Your task to perform on an android device: Clear the cart on bestbuy. Image 0: 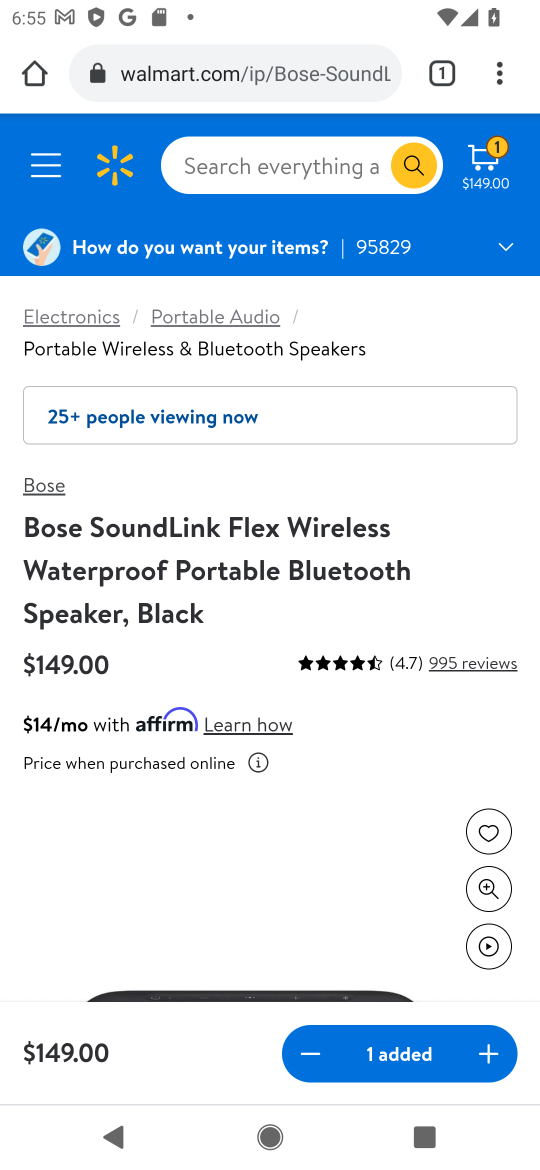
Step 0: press home button
Your task to perform on an android device: Clear the cart on bestbuy. Image 1: 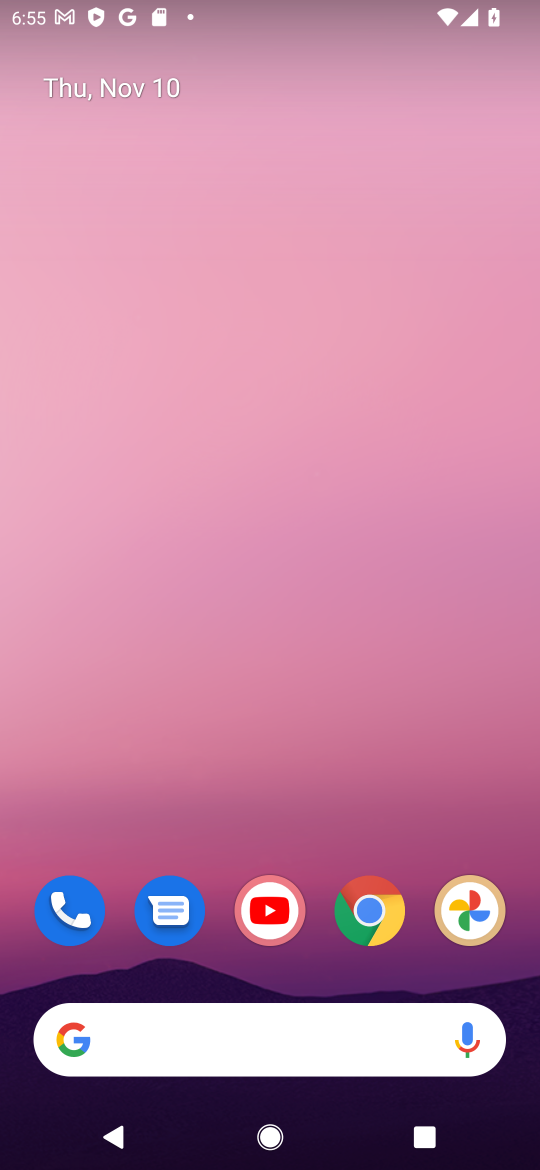
Step 1: click (367, 903)
Your task to perform on an android device: Clear the cart on bestbuy. Image 2: 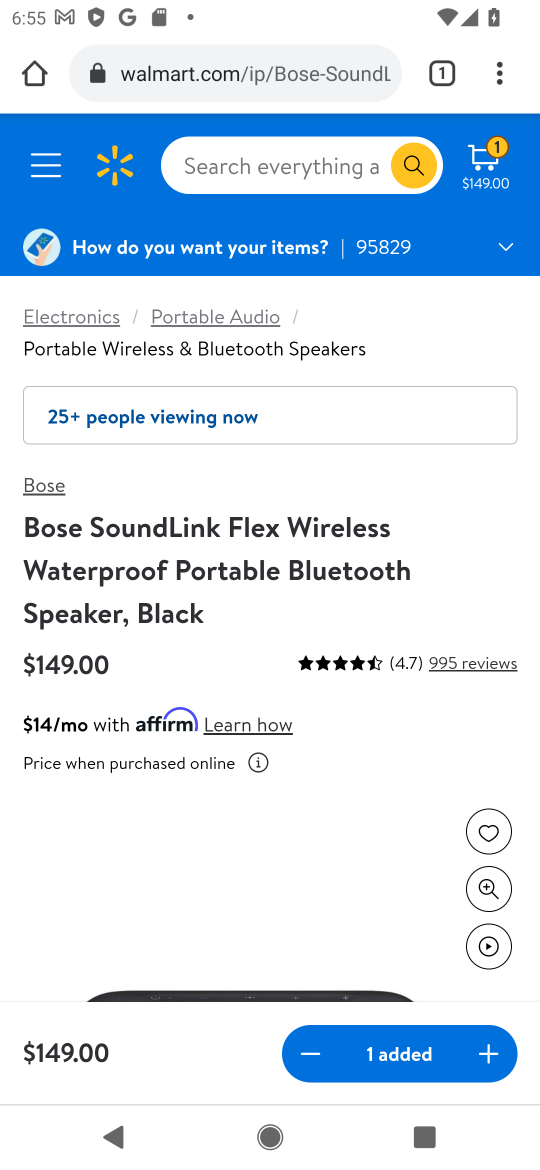
Step 2: click (308, 77)
Your task to perform on an android device: Clear the cart on bestbuy. Image 3: 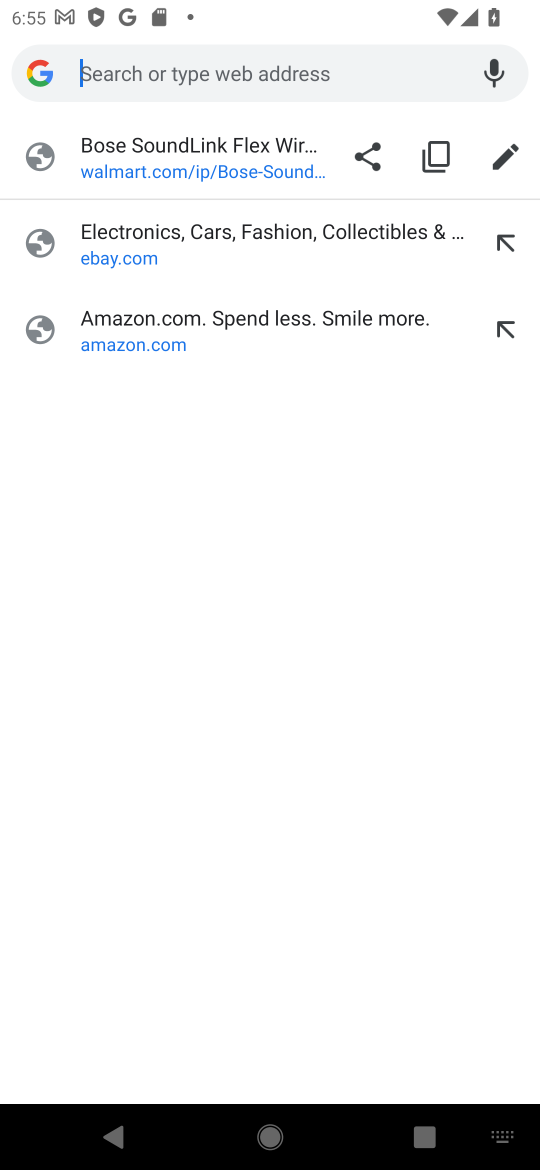
Step 3: type "bestbuy"
Your task to perform on an android device: Clear the cart on bestbuy. Image 4: 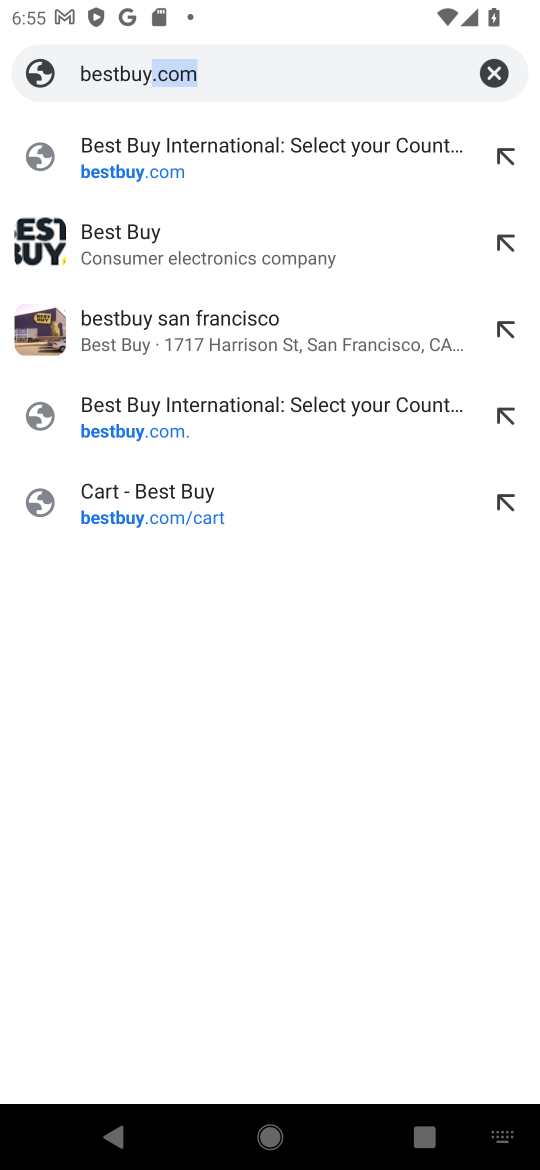
Step 4: click (173, 163)
Your task to perform on an android device: Clear the cart on bestbuy. Image 5: 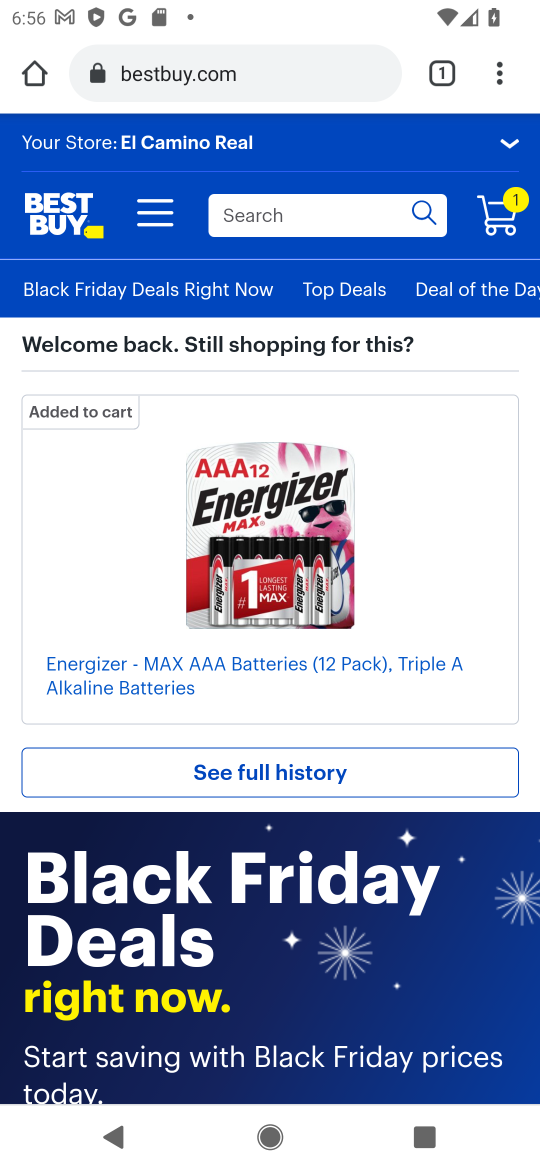
Step 5: click (500, 205)
Your task to perform on an android device: Clear the cart on bestbuy. Image 6: 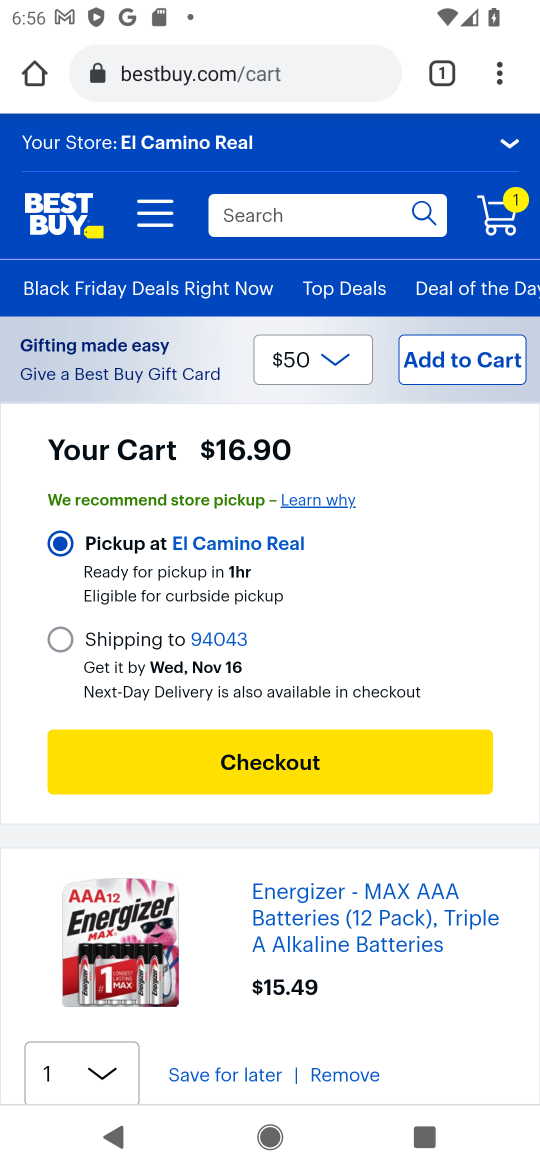
Step 6: click (325, 1071)
Your task to perform on an android device: Clear the cart on bestbuy. Image 7: 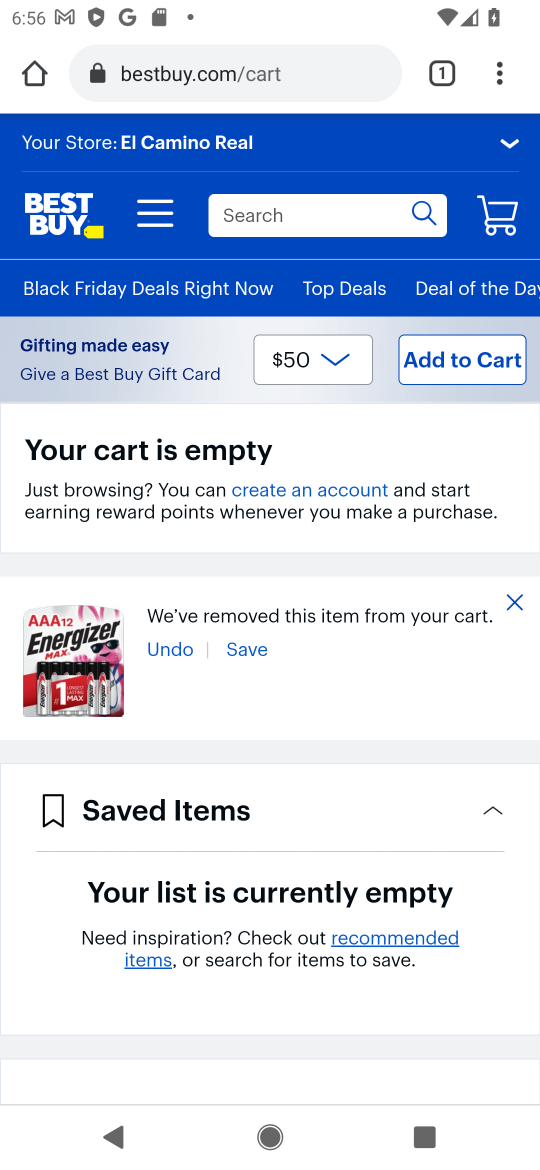
Step 7: task complete